Your task to perform on an android device: check the backup settings in the google photos Image 0: 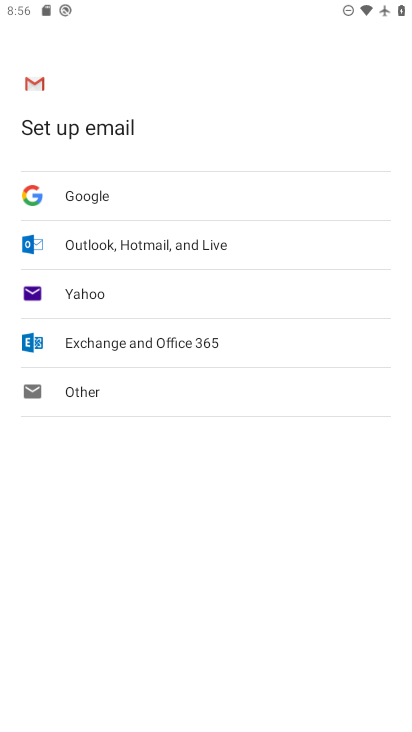
Step 0: press home button
Your task to perform on an android device: check the backup settings in the google photos Image 1: 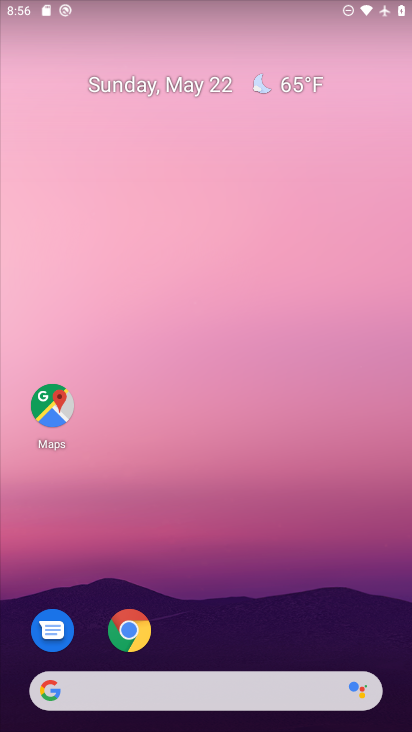
Step 1: drag from (217, 692) to (330, 224)
Your task to perform on an android device: check the backup settings in the google photos Image 2: 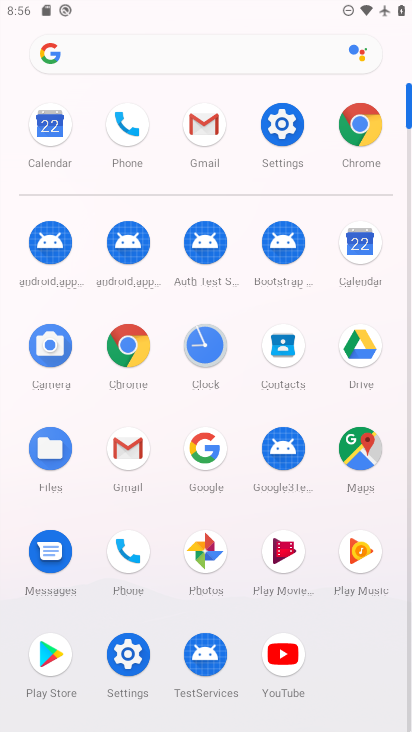
Step 2: click (207, 551)
Your task to perform on an android device: check the backup settings in the google photos Image 3: 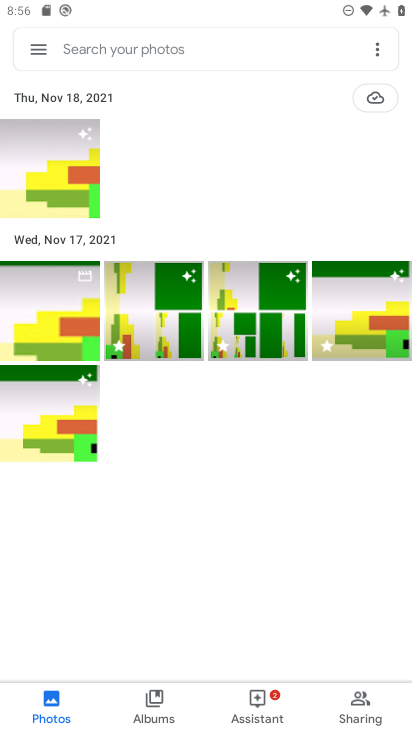
Step 3: click (40, 50)
Your task to perform on an android device: check the backup settings in the google photos Image 4: 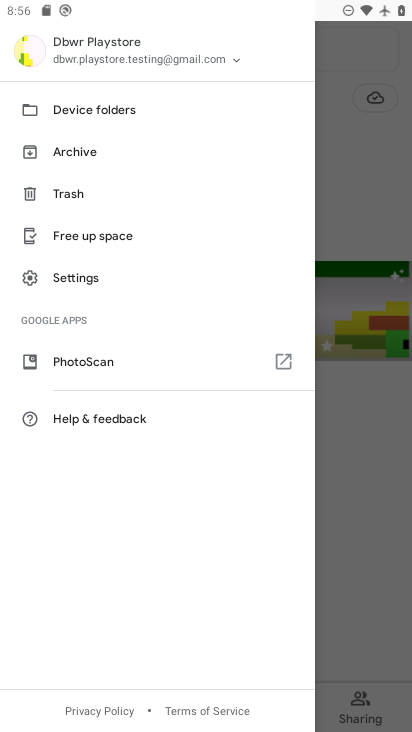
Step 4: click (75, 287)
Your task to perform on an android device: check the backup settings in the google photos Image 5: 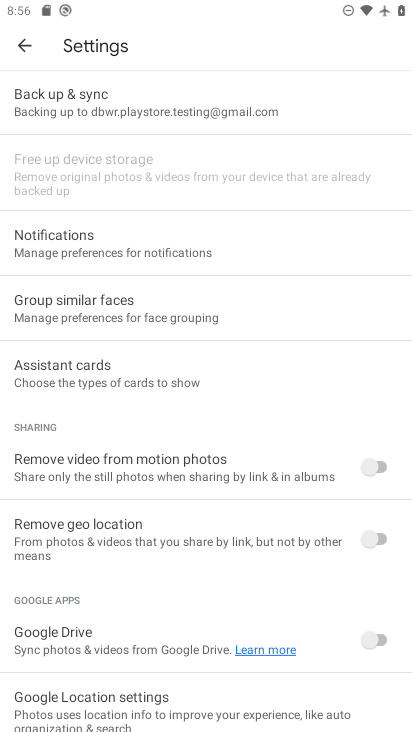
Step 5: click (153, 111)
Your task to perform on an android device: check the backup settings in the google photos Image 6: 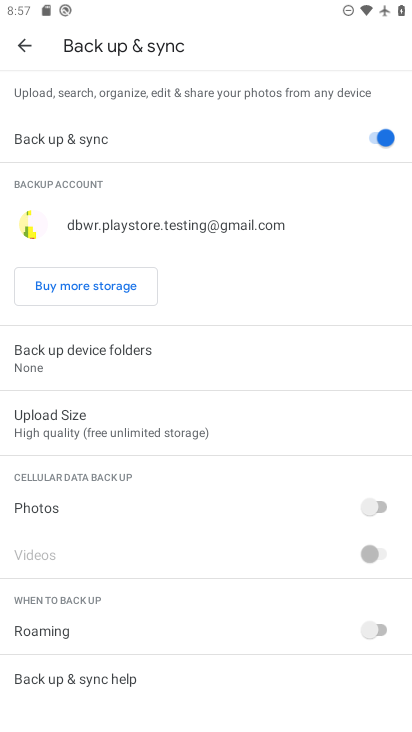
Step 6: task complete